Your task to perform on an android device: open wifi settings Image 0: 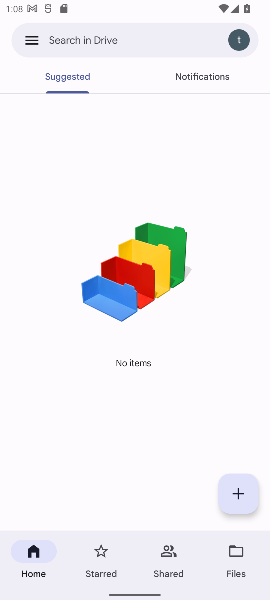
Step 0: press home button
Your task to perform on an android device: open wifi settings Image 1: 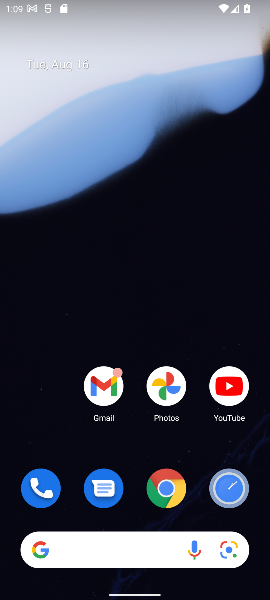
Step 1: drag from (66, 319) to (78, 126)
Your task to perform on an android device: open wifi settings Image 2: 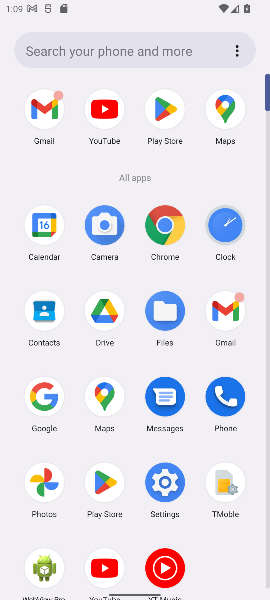
Step 2: click (163, 483)
Your task to perform on an android device: open wifi settings Image 3: 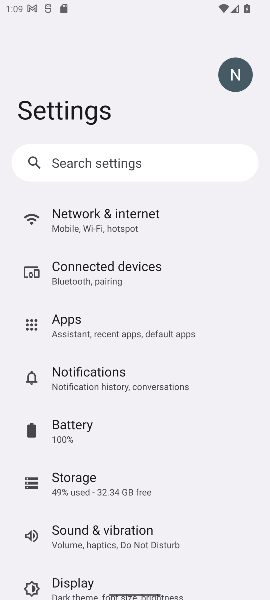
Step 3: task complete